Your task to perform on an android device: see sites visited before in the chrome app Image 0: 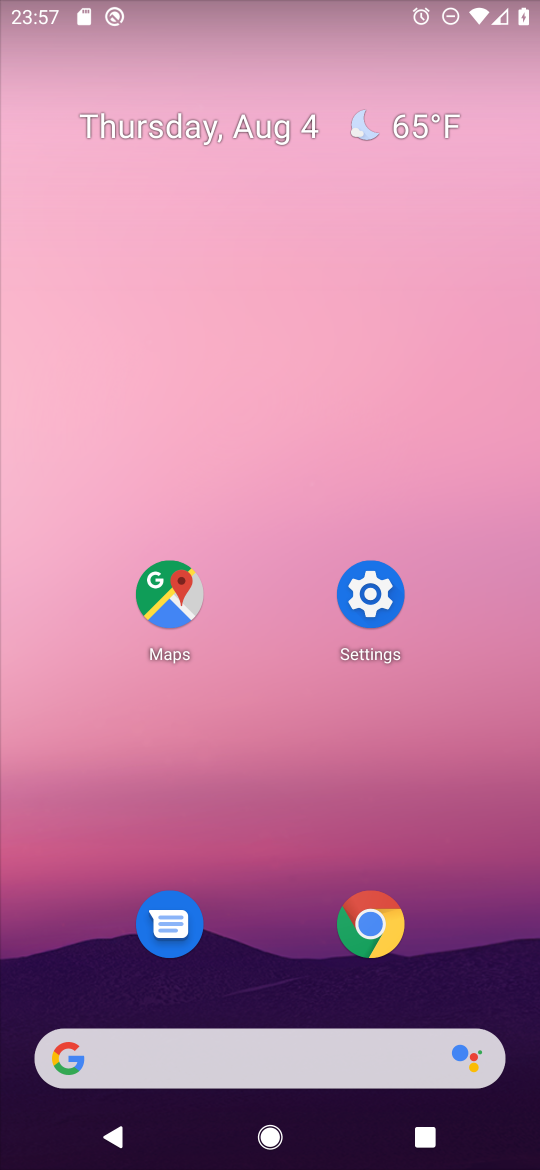
Step 0: click (387, 922)
Your task to perform on an android device: see sites visited before in the chrome app Image 1: 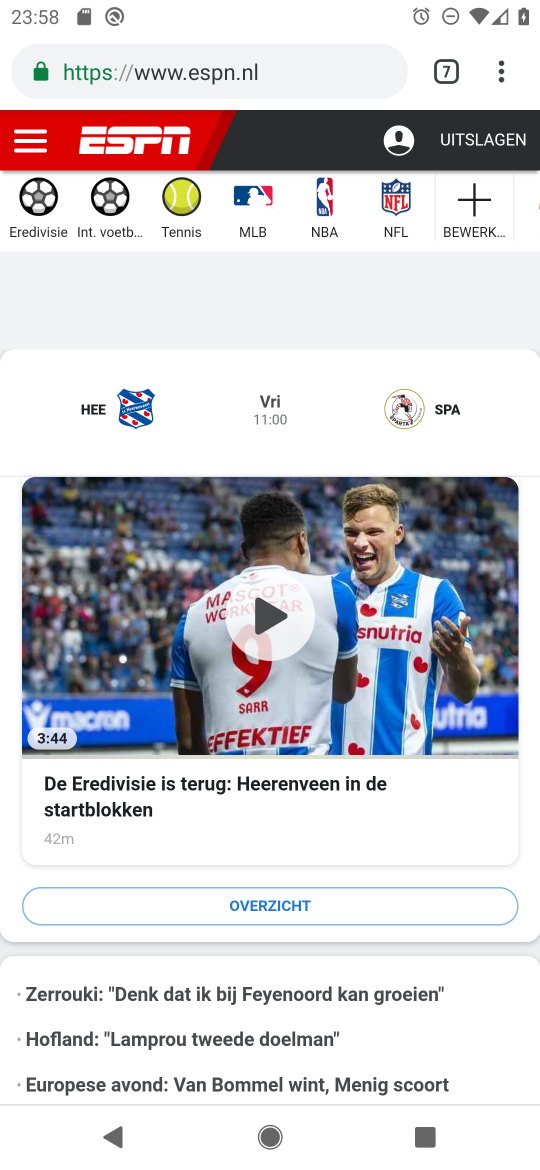
Step 1: task complete